Your task to perform on an android device: see tabs open on other devices in the chrome app Image 0: 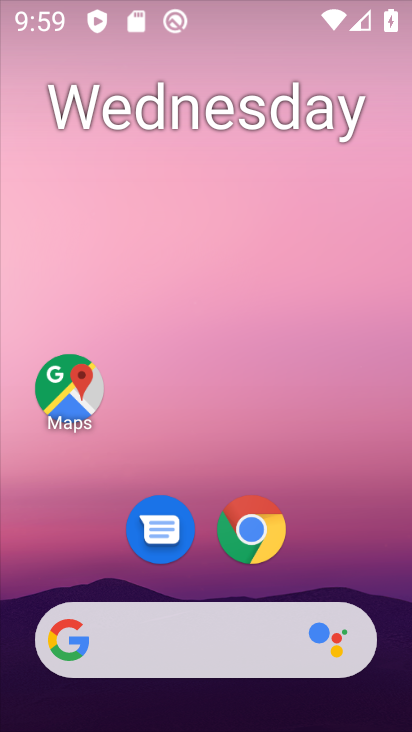
Step 0: press back button
Your task to perform on an android device: see tabs open on other devices in the chrome app Image 1: 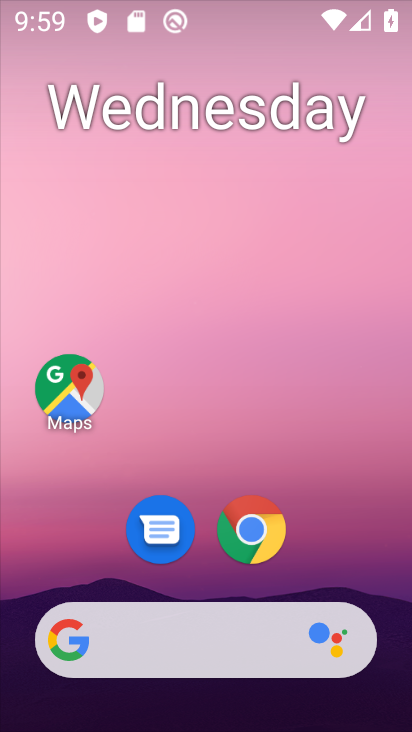
Step 1: click (163, 8)
Your task to perform on an android device: see tabs open on other devices in the chrome app Image 2: 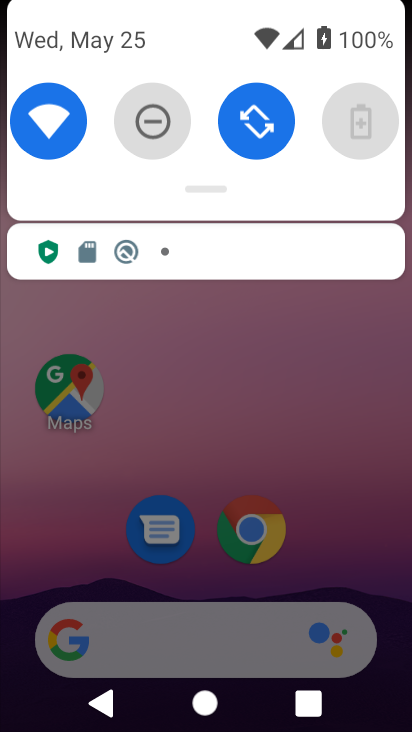
Step 2: drag from (3, 138) to (297, 365)
Your task to perform on an android device: see tabs open on other devices in the chrome app Image 3: 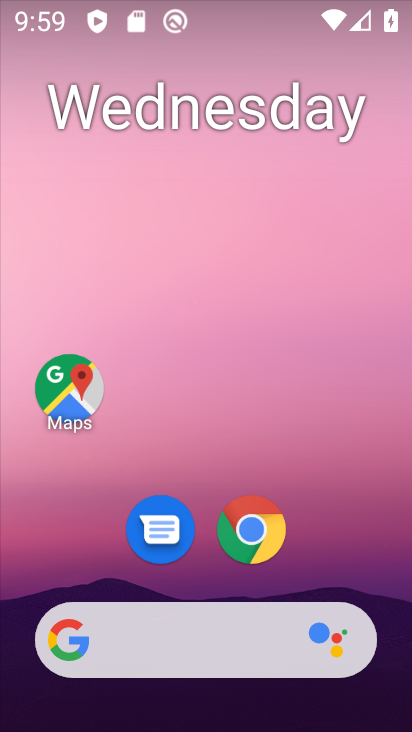
Step 3: drag from (9, 240) to (395, 397)
Your task to perform on an android device: see tabs open on other devices in the chrome app Image 4: 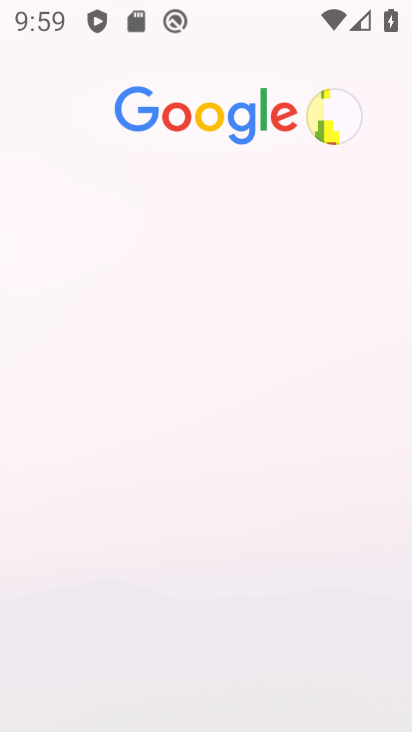
Step 4: drag from (207, 404) to (400, 526)
Your task to perform on an android device: see tabs open on other devices in the chrome app Image 5: 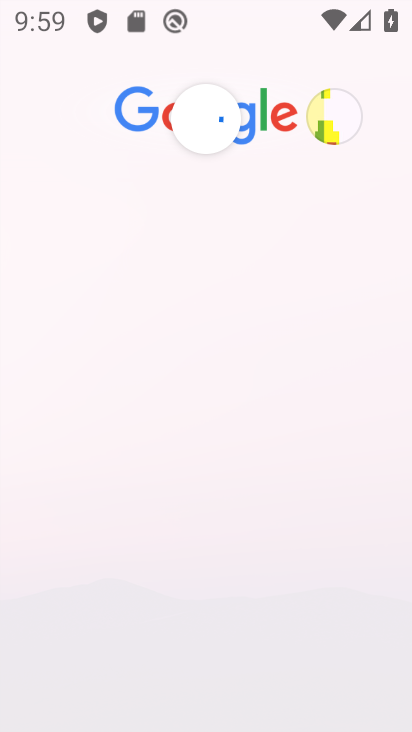
Step 5: drag from (31, 155) to (274, 488)
Your task to perform on an android device: see tabs open on other devices in the chrome app Image 6: 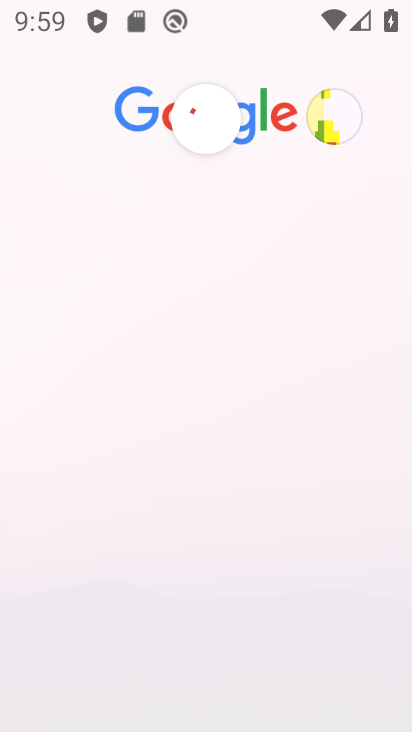
Step 6: drag from (14, 211) to (384, 479)
Your task to perform on an android device: see tabs open on other devices in the chrome app Image 7: 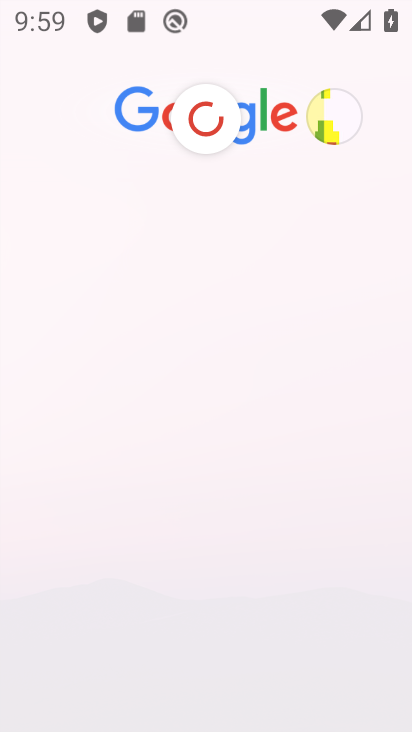
Step 7: drag from (21, 194) to (396, 507)
Your task to perform on an android device: see tabs open on other devices in the chrome app Image 8: 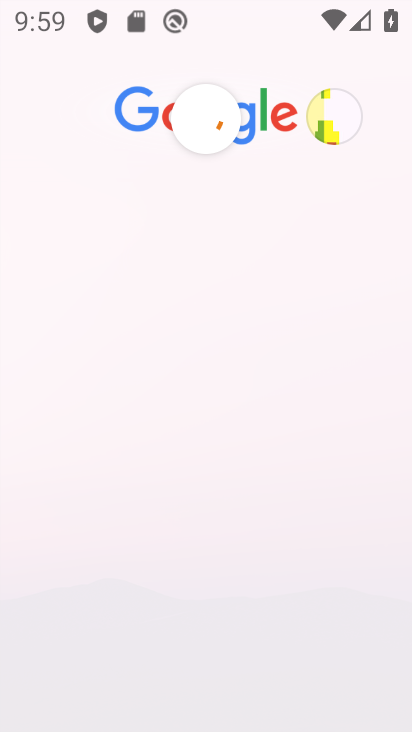
Step 8: drag from (55, 258) to (410, 601)
Your task to perform on an android device: see tabs open on other devices in the chrome app Image 9: 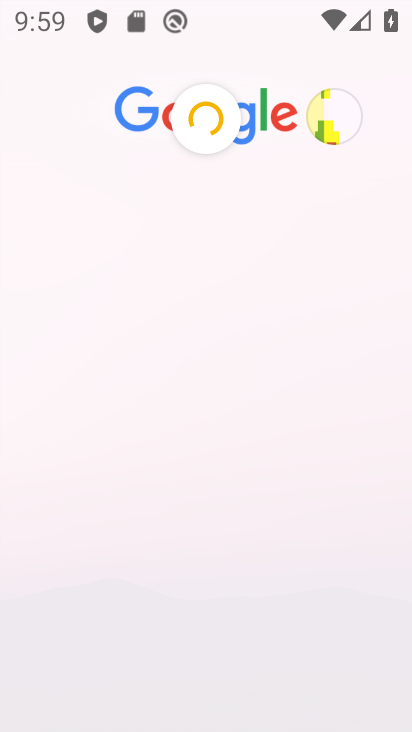
Step 9: drag from (93, 196) to (382, 578)
Your task to perform on an android device: see tabs open on other devices in the chrome app Image 10: 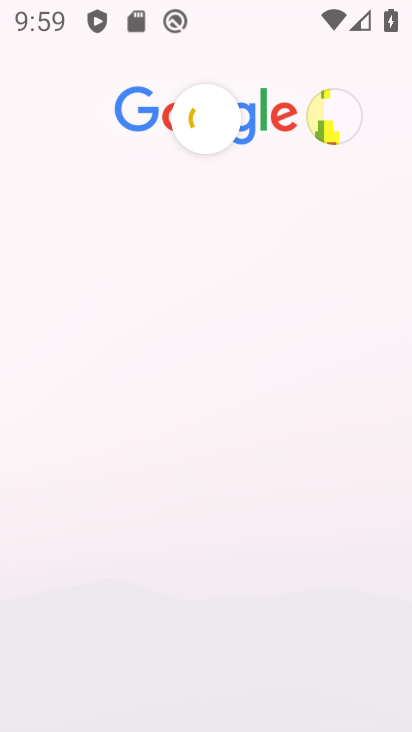
Step 10: drag from (72, 164) to (411, 521)
Your task to perform on an android device: see tabs open on other devices in the chrome app Image 11: 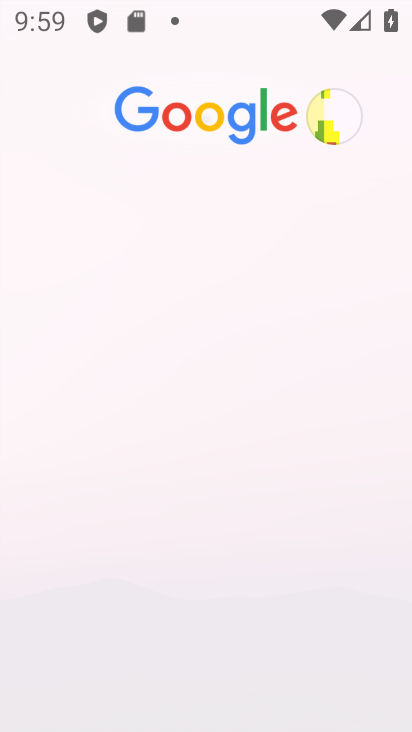
Step 11: drag from (93, 180) to (359, 585)
Your task to perform on an android device: see tabs open on other devices in the chrome app Image 12: 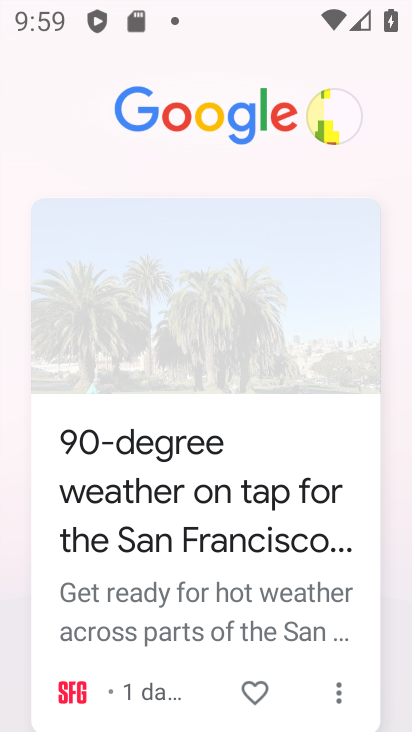
Step 12: drag from (196, 457) to (243, 517)
Your task to perform on an android device: see tabs open on other devices in the chrome app Image 13: 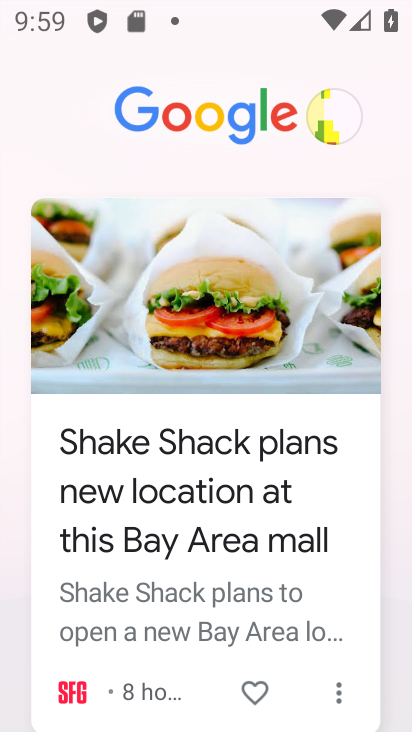
Step 13: drag from (197, 576) to (224, 646)
Your task to perform on an android device: see tabs open on other devices in the chrome app Image 14: 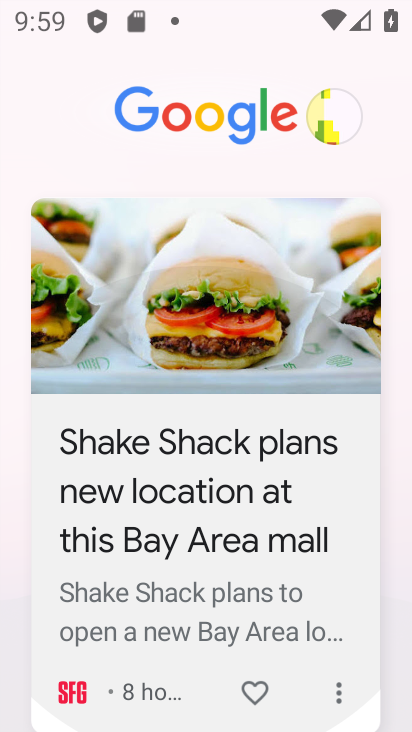
Step 14: drag from (178, 389) to (194, 573)
Your task to perform on an android device: see tabs open on other devices in the chrome app Image 15: 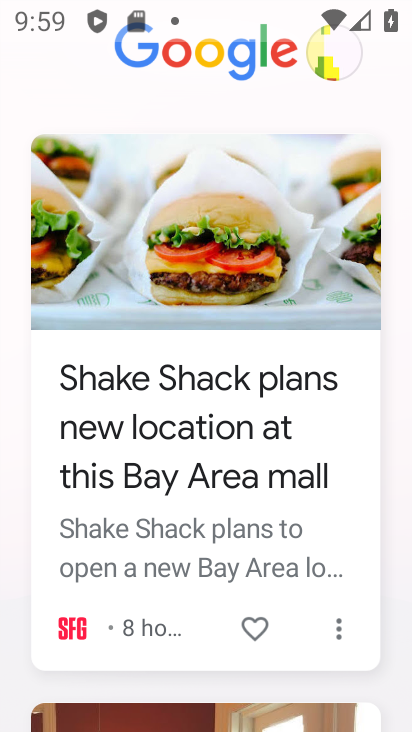
Step 15: drag from (157, 319) to (229, 662)
Your task to perform on an android device: see tabs open on other devices in the chrome app Image 16: 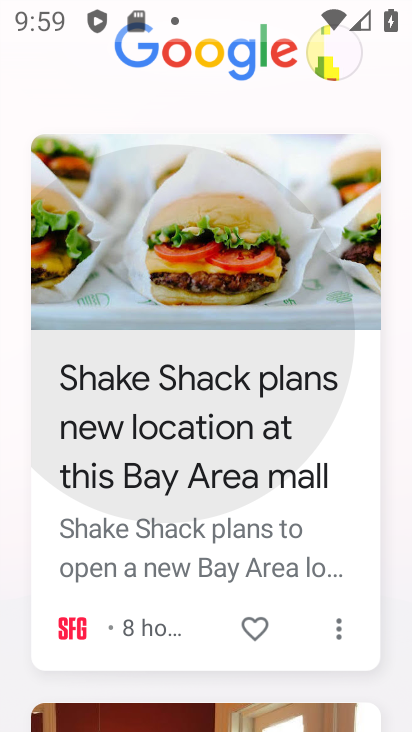
Step 16: drag from (242, 232) to (292, 706)
Your task to perform on an android device: see tabs open on other devices in the chrome app Image 17: 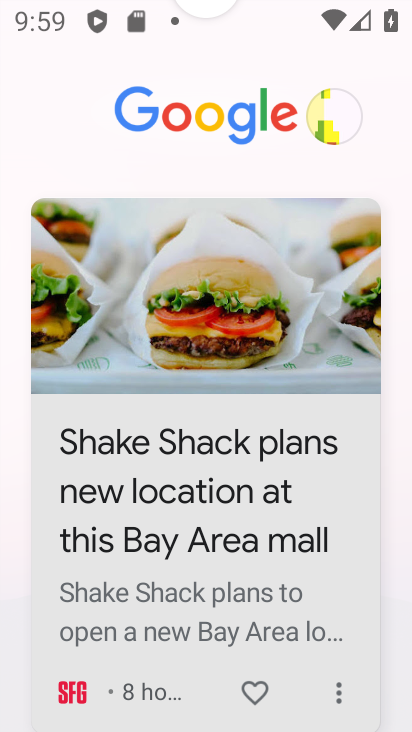
Step 17: drag from (269, 418) to (342, 719)
Your task to perform on an android device: see tabs open on other devices in the chrome app Image 18: 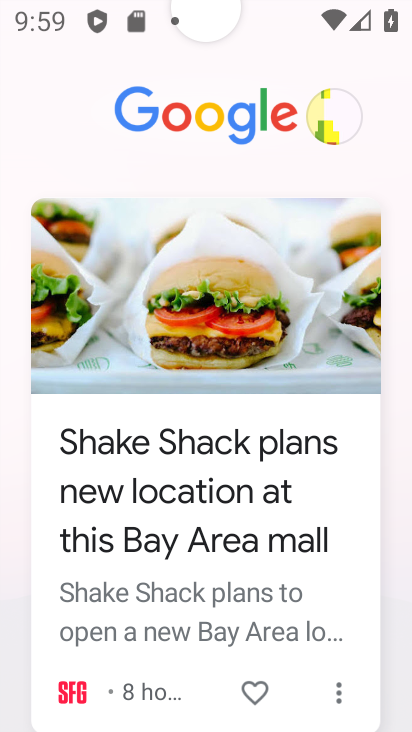
Step 18: drag from (269, 508) to (301, 699)
Your task to perform on an android device: see tabs open on other devices in the chrome app Image 19: 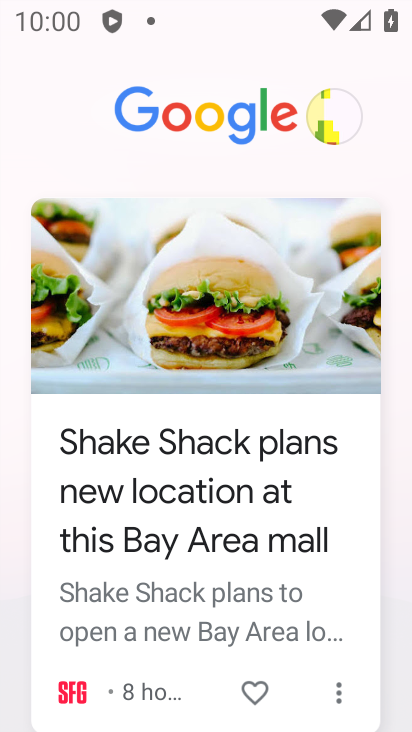
Step 19: drag from (263, 302) to (209, 365)
Your task to perform on an android device: see tabs open on other devices in the chrome app Image 20: 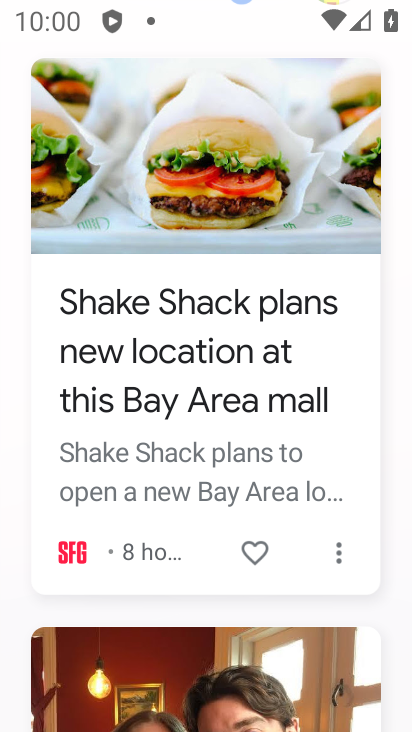
Step 20: drag from (241, 93) to (244, 434)
Your task to perform on an android device: see tabs open on other devices in the chrome app Image 21: 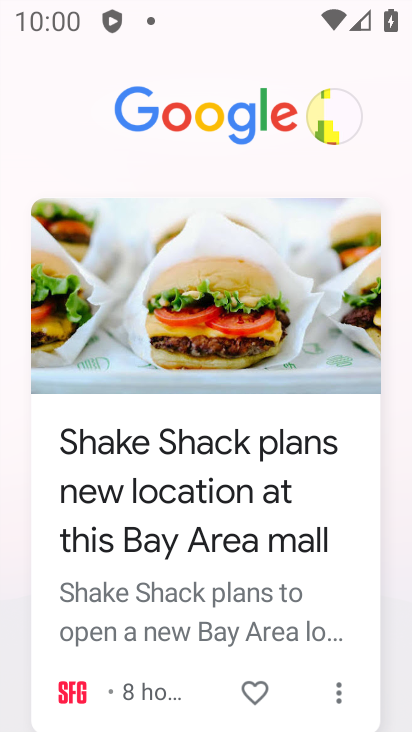
Step 21: drag from (177, 225) to (190, 488)
Your task to perform on an android device: see tabs open on other devices in the chrome app Image 22: 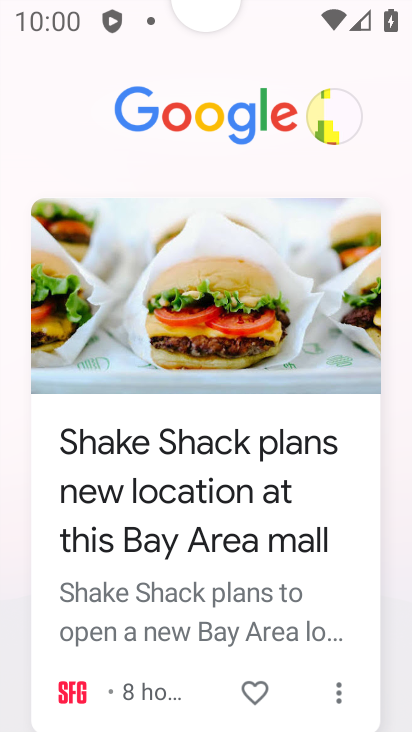
Step 22: drag from (160, 130) to (256, 430)
Your task to perform on an android device: see tabs open on other devices in the chrome app Image 23: 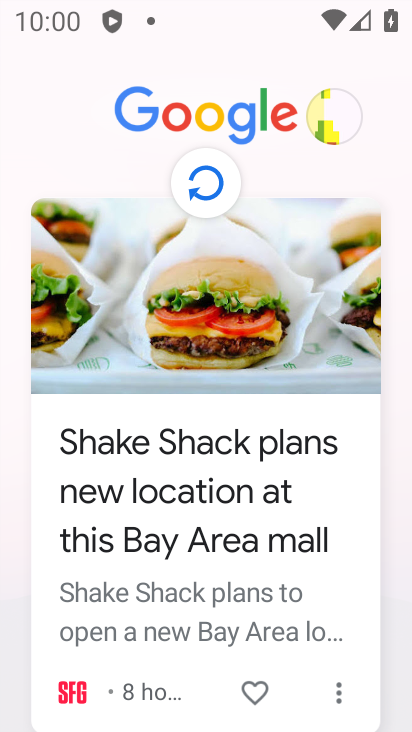
Step 23: click (144, 455)
Your task to perform on an android device: see tabs open on other devices in the chrome app Image 24: 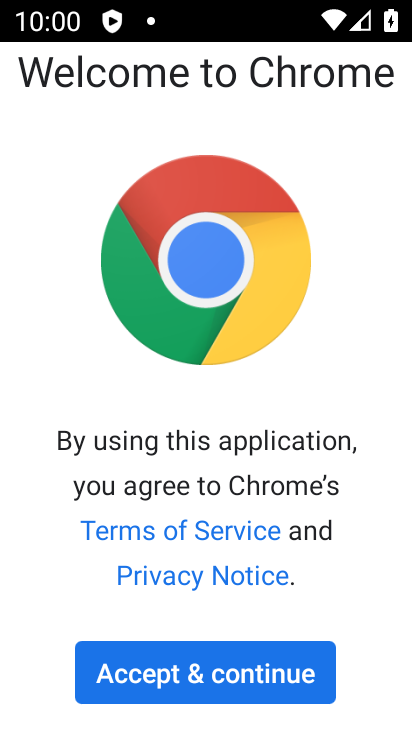
Step 24: click (204, 659)
Your task to perform on an android device: see tabs open on other devices in the chrome app Image 25: 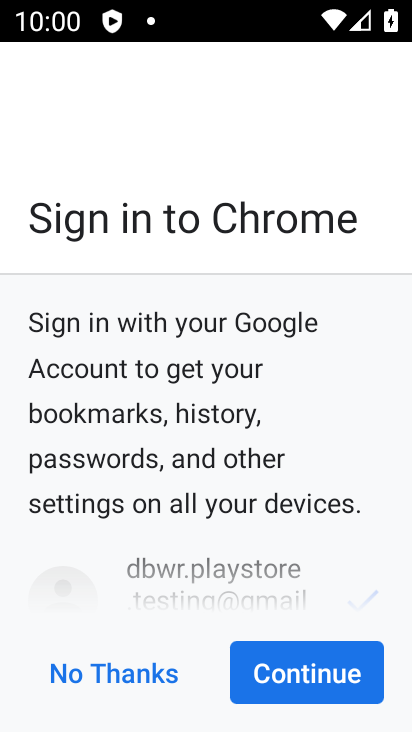
Step 25: click (319, 673)
Your task to perform on an android device: see tabs open on other devices in the chrome app Image 26: 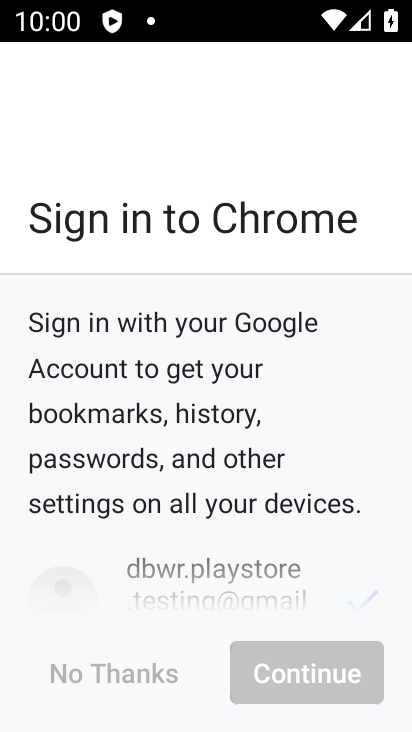
Step 26: click (319, 673)
Your task to perform on an android device: see tabs open on other devices in the chrome app Image 27: 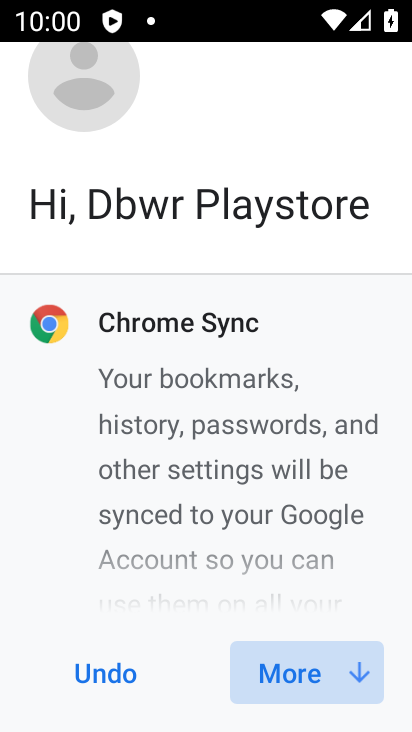
Step 27: click (327, 675)
Your task to perform on an android device: see tabs open on other devices in the chrome app Image 28: 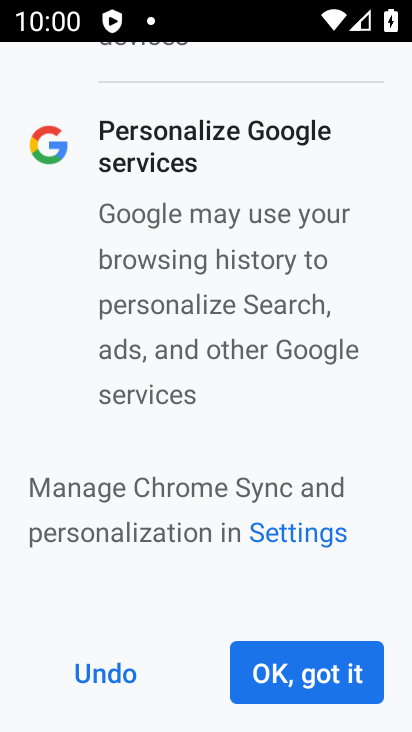
Step 28: click (330, 663)
Your task to perform on an android device: see tabs open on other devices in the chrome app Image 29: 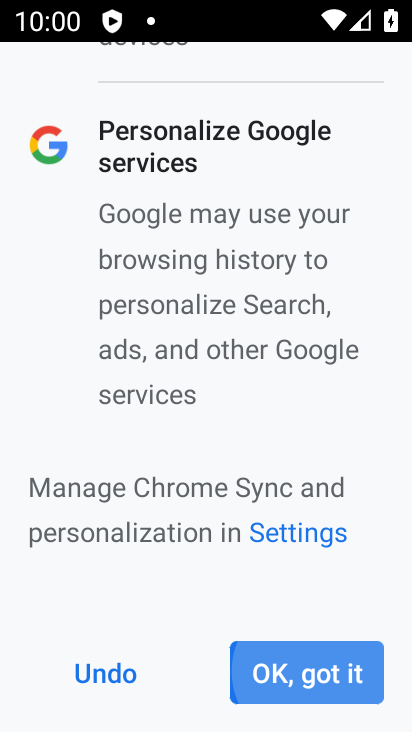
Step 29: click (327, 664)
Your task to perform on an android device: see tabs open on other devices in the chrome app Image 30: 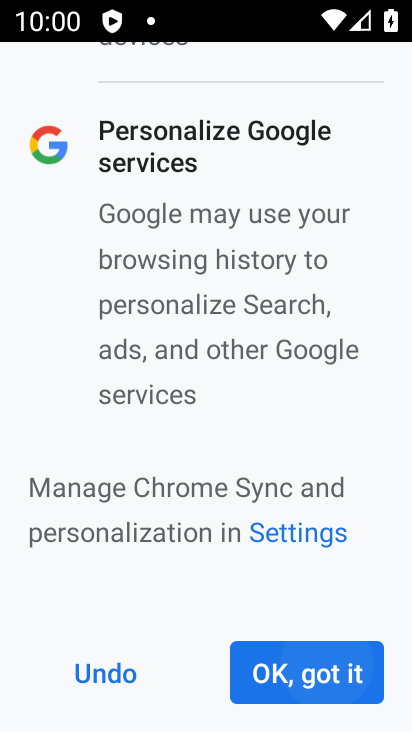
Step 30: click (325, 667)
Your task to perform on an android device: see tabs open on other devices in the chrome app Image 31: 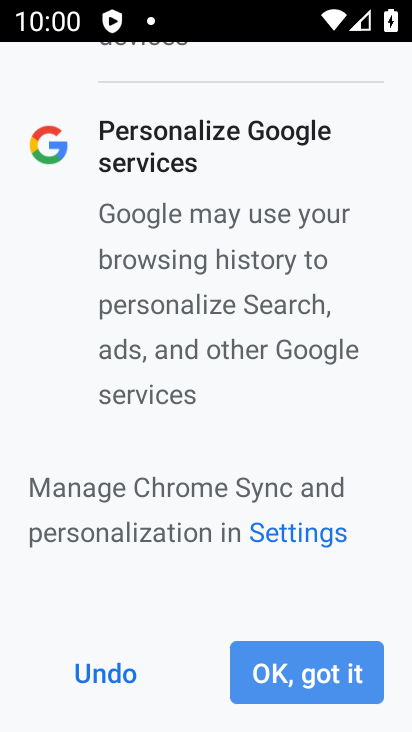
Step 31: click (321, 669)
Your task to perform on an android device: see tabs open on other devices in the chrome app Image 32: 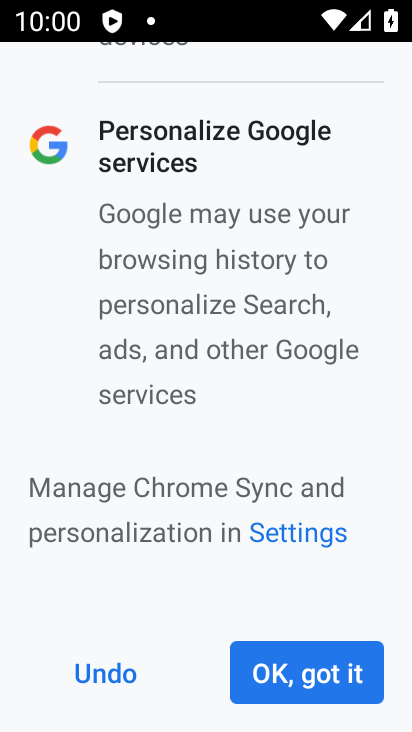
Step 32: click (321, 669)
Your task to perform on an android device: see tabs open on other devices in the chrome app Image 33: 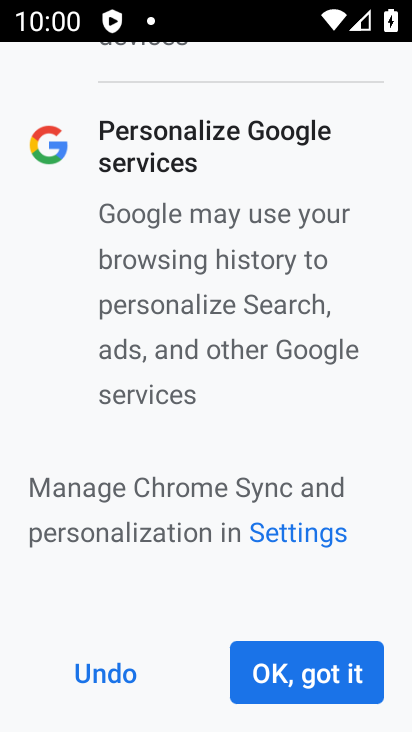
Step 33: click (320, 668)
Your task to perform on an android device: see tabs open on other devices in the chrome app Image 34: 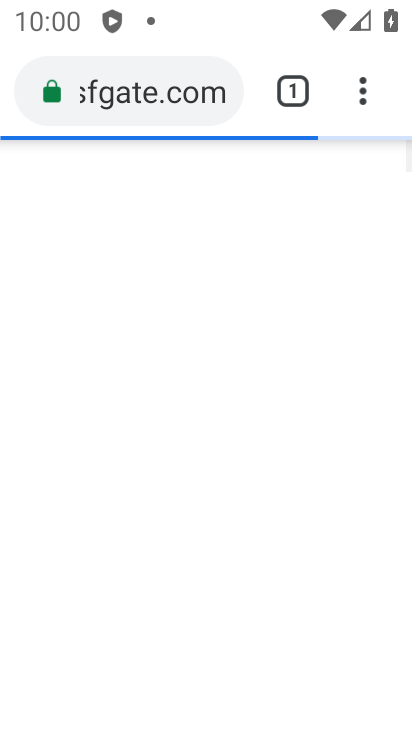
Step 34: drag from (360, 87) to (72, 429)
Your task to perform on an android device: see tabs open on other devices in the chrome app Image 35: 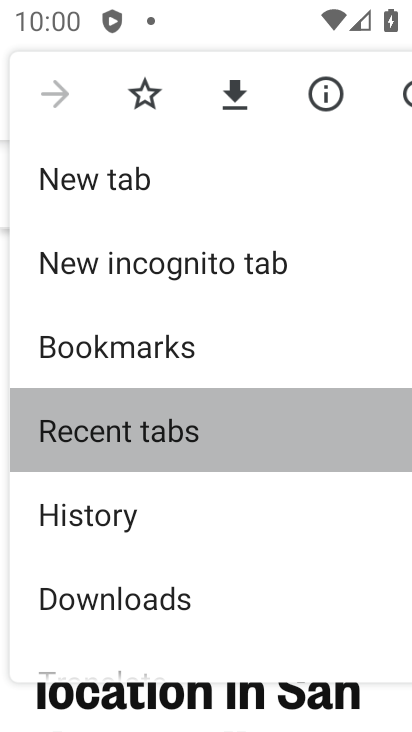
Step 35: click (72, 429)
Your task to perform on an android device: see tabs open on other devices in the chrome app Image 36: 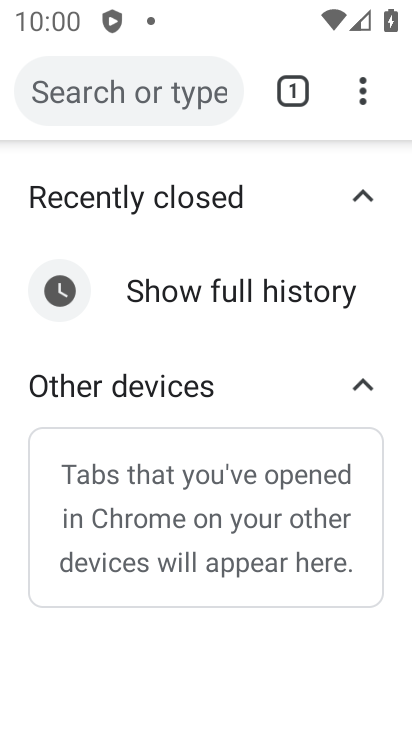
Step 36: task complete